Your task to perform on an android device: Search for panasonic triple a on amazon.com, select the first entry, add it to the cart, then select checkout. Image 0: 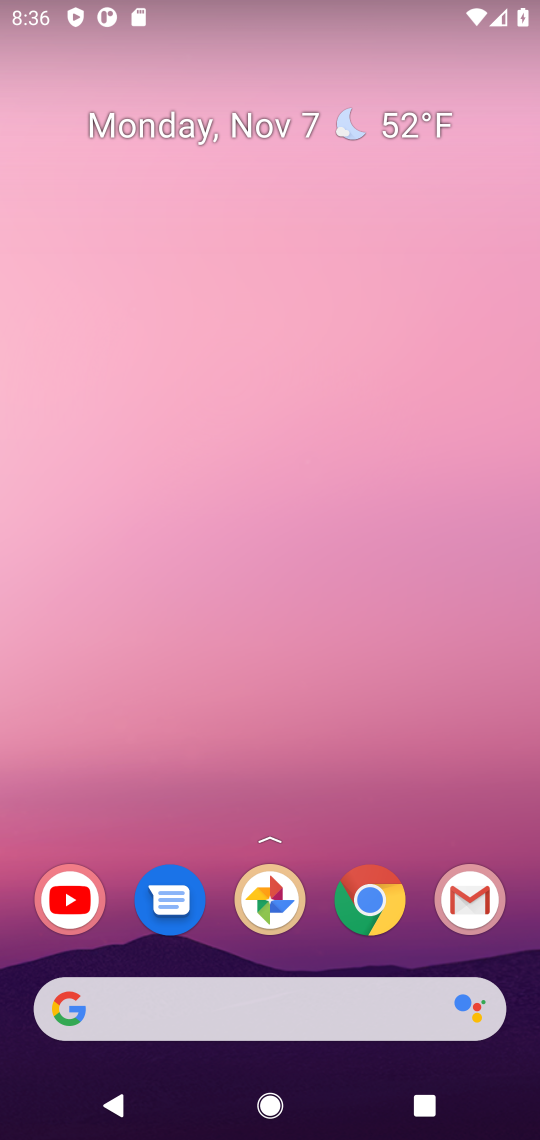
Step 0: click (325, 1005)
Your task to perform on an android device: Search for panasonic triple a on amazon.com, select the first entry, add it to the cart, then select checkout. Image 1: 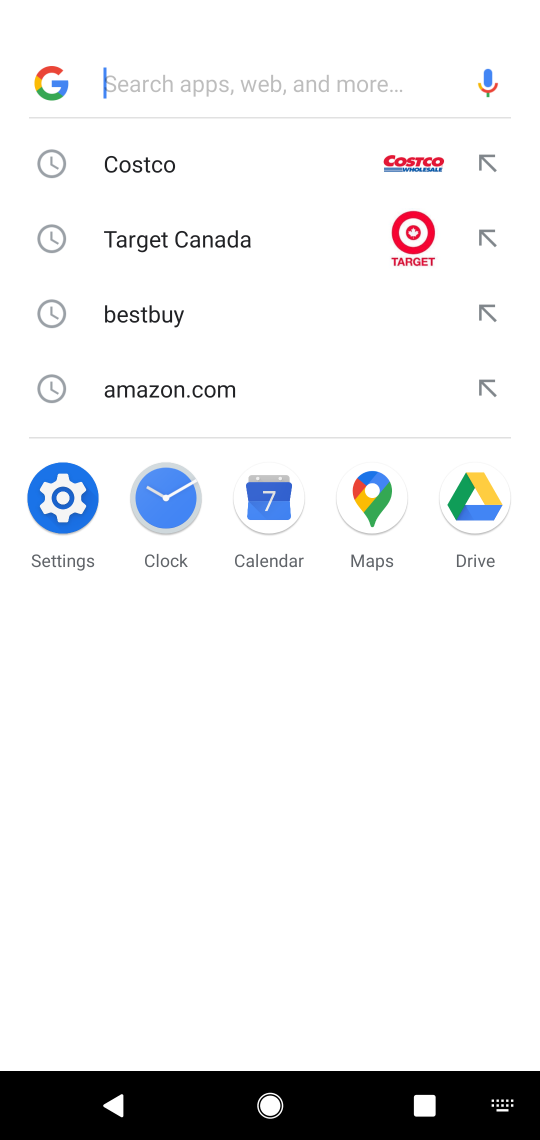
Step 1: click (330, 388)
Your task to perform on an android device: Search for panasonic triple a on amazon.com, select the first entry, add it to the cart, then select checkout. Image 2: 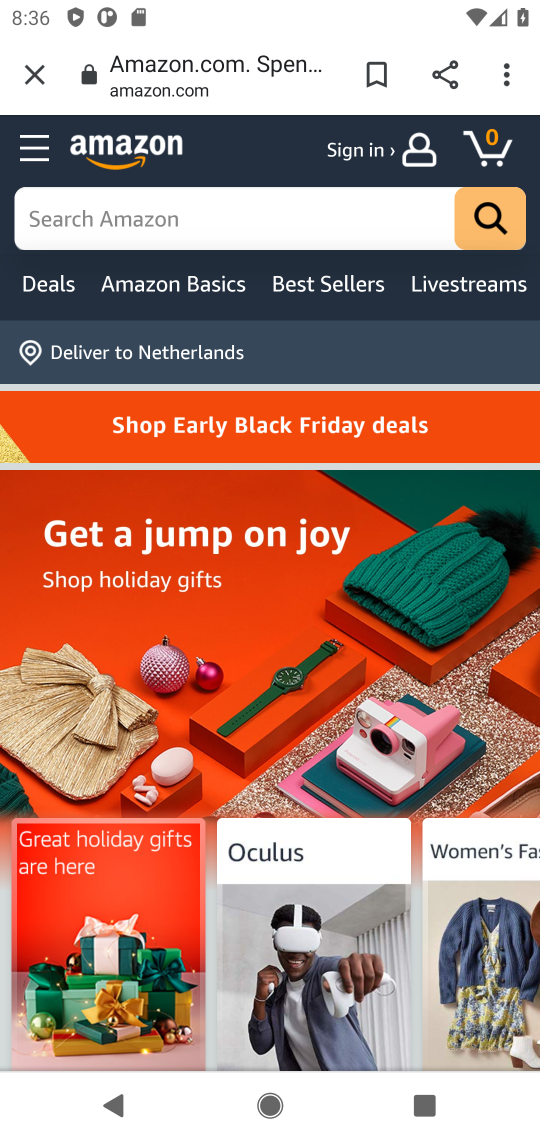
Step 2: click (259, 241)
Your task to perform on an android device: Search for panasonic triple a on amazon.com, select the first entry, add it to the cart, then select checkout. Image 3: 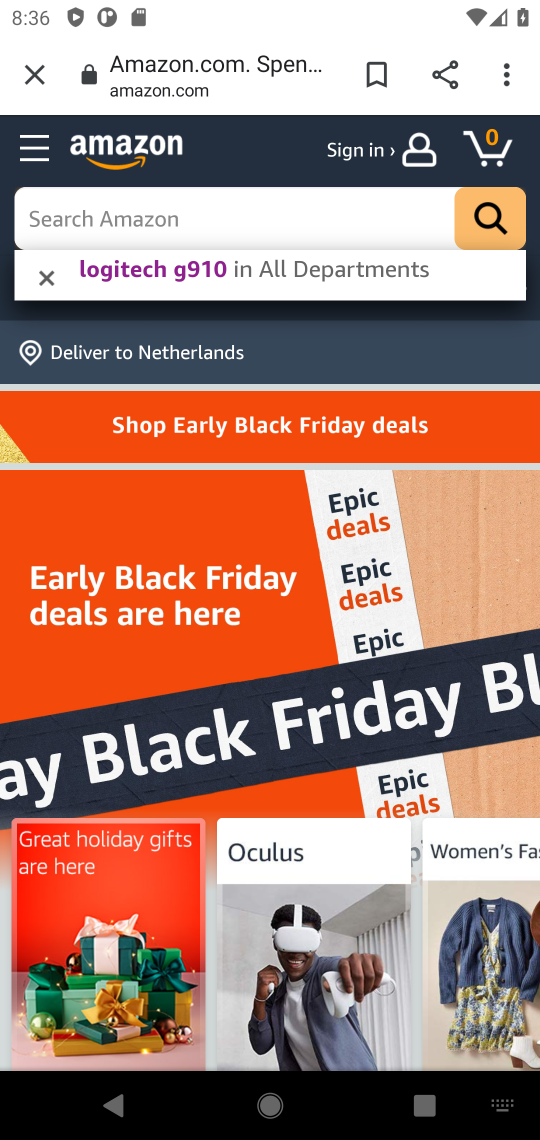
Step 3: type "panasonic triple A"
Your task to perform on an android device: Search for panasonic triple a on amazon.com, select the first entry, add it to the cart, then select checkout. Image 4: 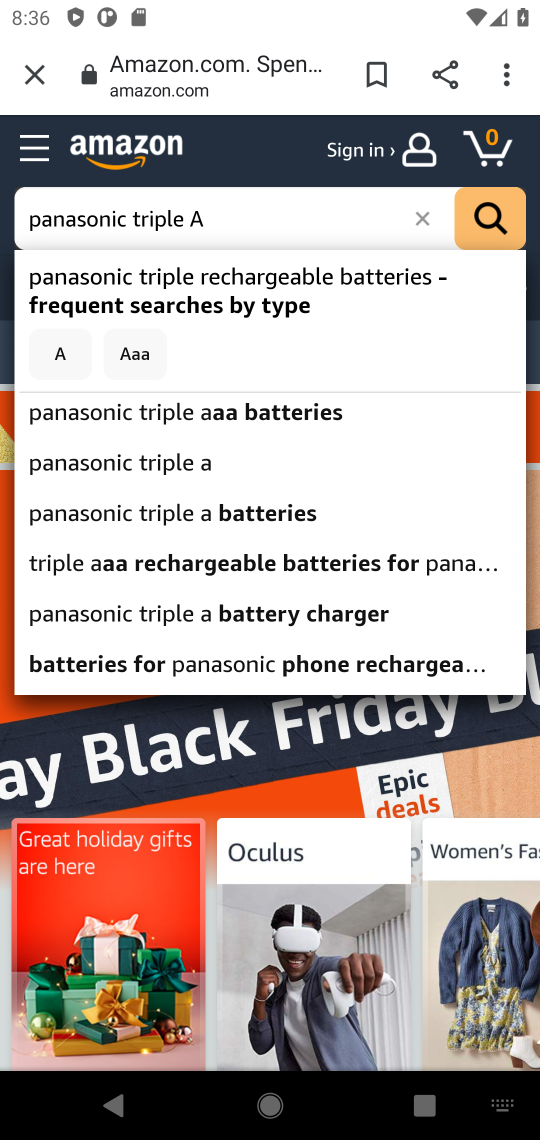
Step 4: click (275, 398)
Your task to perform on an android device: Search for panasonic triple a on amazon.com, select the first entry, add it to the cart, then select checkout. Image 5: 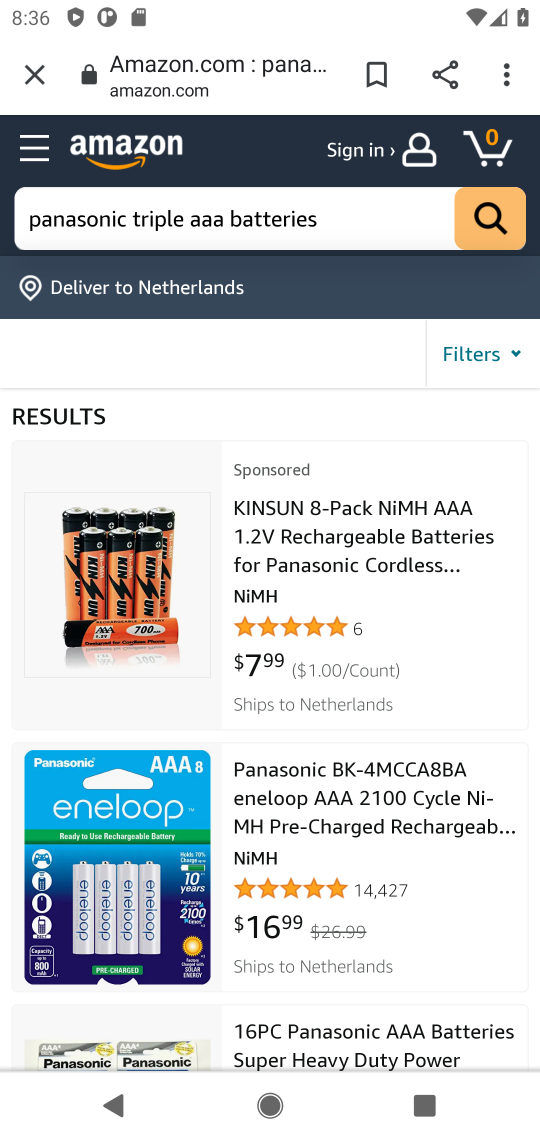
Step 5: click (305, 560)
Your task to perform on an android device: Search for panasonic triple a on amazon.com, select the first entry, add it to the cart, then select checkout. Image 6: 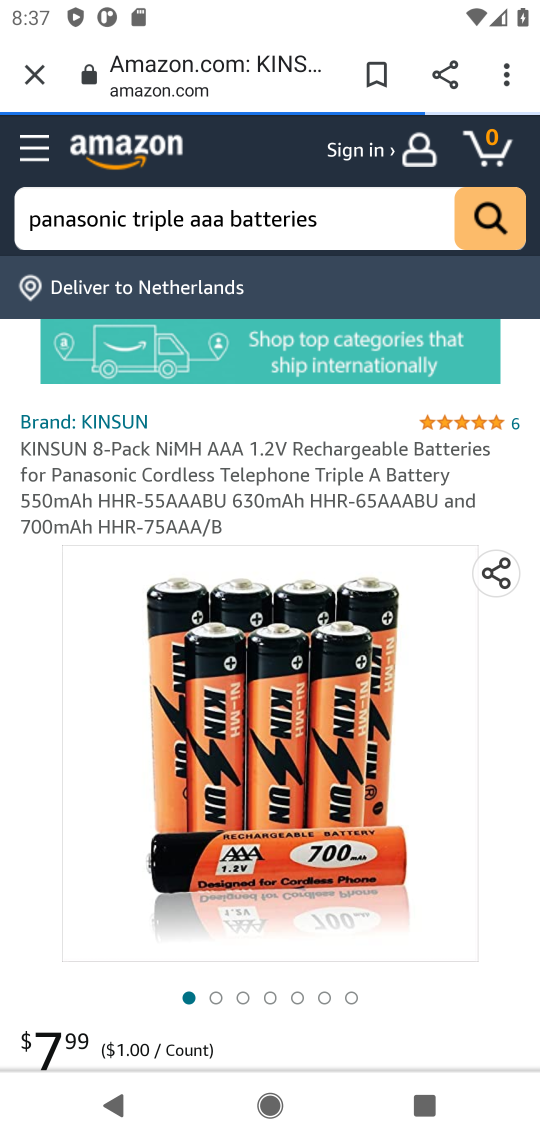
Step 6: task complete